Your task to perform on an android device: Open the calendar and show me this week's events Image 0: 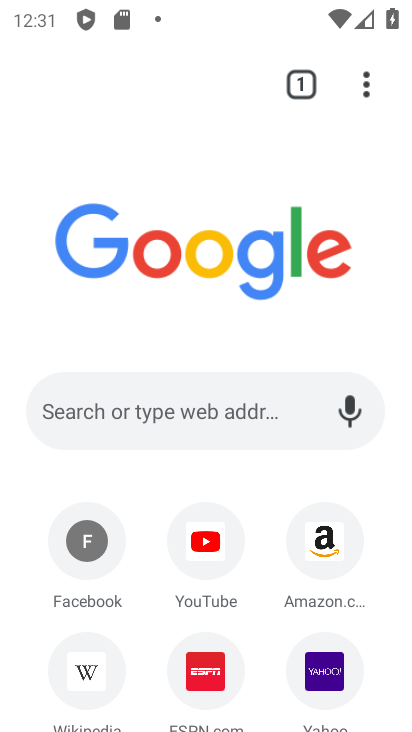
Step 0: press home button
Your task to perform on an android device: Open the calendar and show me this week's events Image 1: 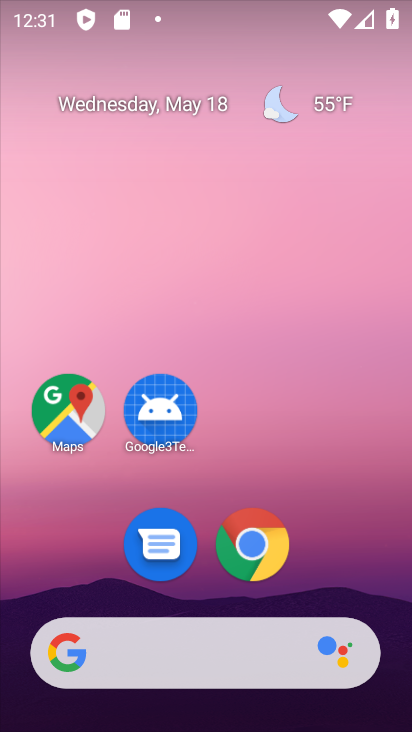
Step 1: drag from (209, 579) to (247, 50)
Your task to perform on an android device: Open the calendar and show me this week's events Image 2: 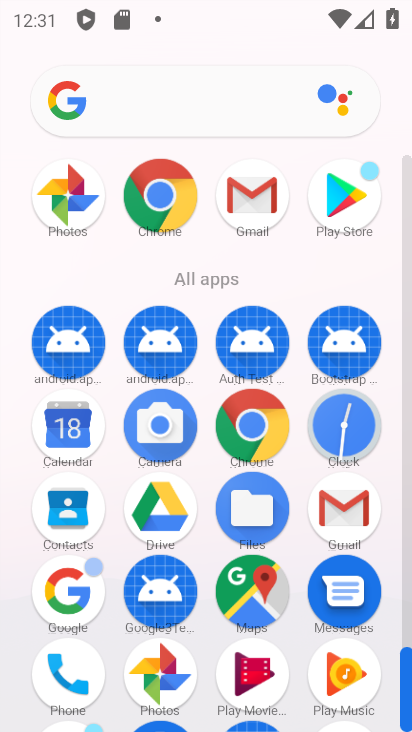
Step 2: click (78, 430)
Your task to perform on an android device: Open the calendar and show me this week's events Image 3: 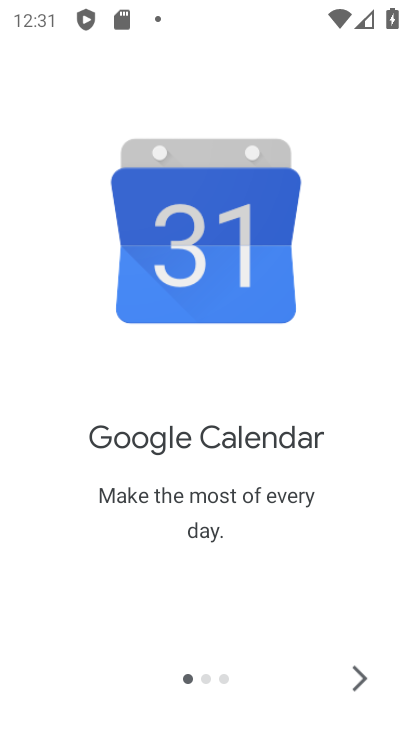
Step 3: click (359, 671)
Your task to perform on an android device: Open the calendar and show me this week's events Image 4: 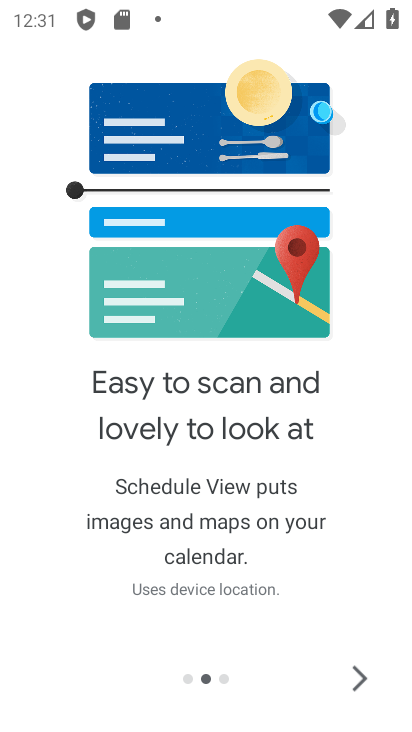
Step 4: click (357, 674)
Your task to perform on an android device: Open the calendar and show me this week's events Image 5: 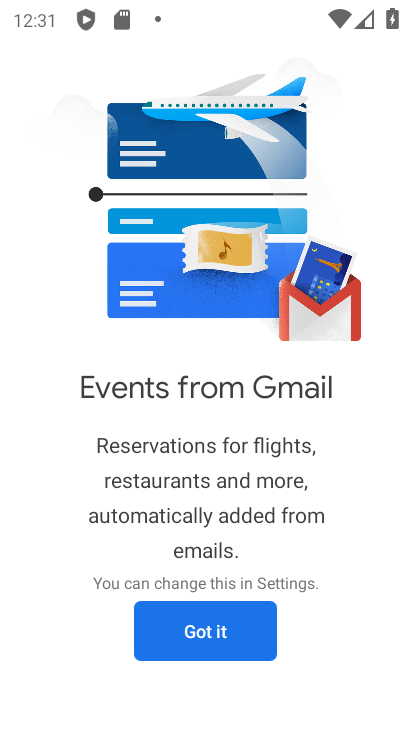
Step 5: click (221, 633)
Your task to perform on an android device: Open the calendar and show me this week's events Image 6: 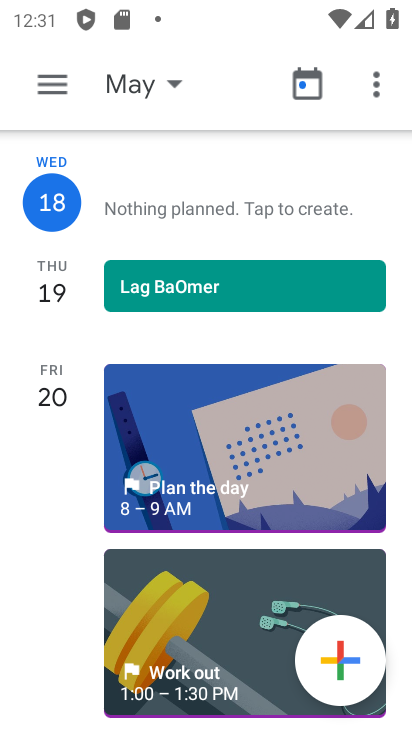
Step 6: click (60, 91)
Your task to perform on an android device: Open the calendar and show me this week's events Image 7: 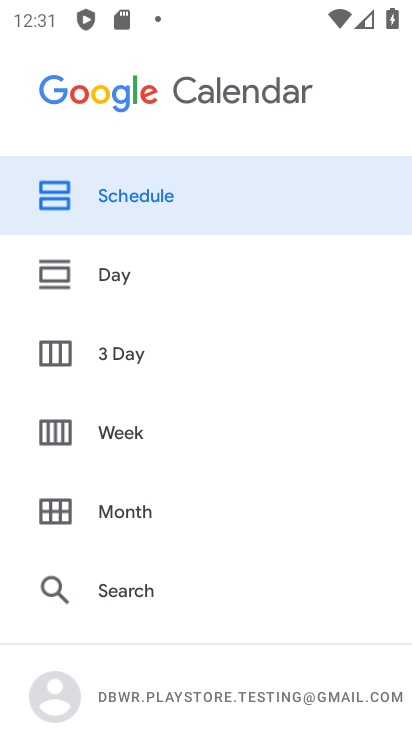
Step 7: drag from (131, 592) to (235, 135)
Your task to perform on an android device: Open the calendar and show me this week's events Image 8: 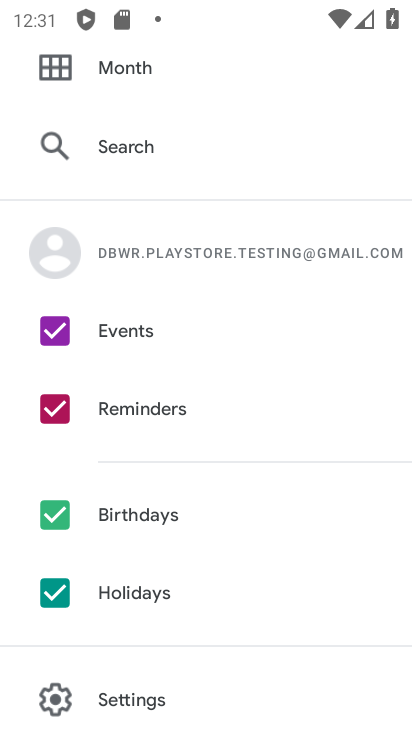
Step 8: click (101, 412)
Your task to perform on an android device: Open the calendar and show me this week's events Image 9: 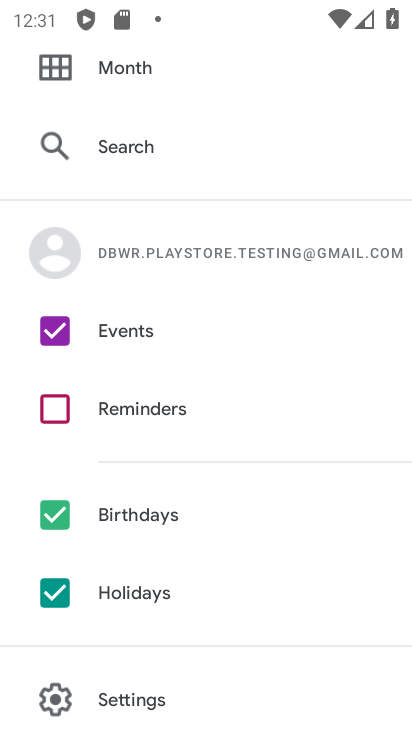
Step 9: click (70, 516)
Your task to perform on an android device: Open the calendar and show me this week's events Image 10: 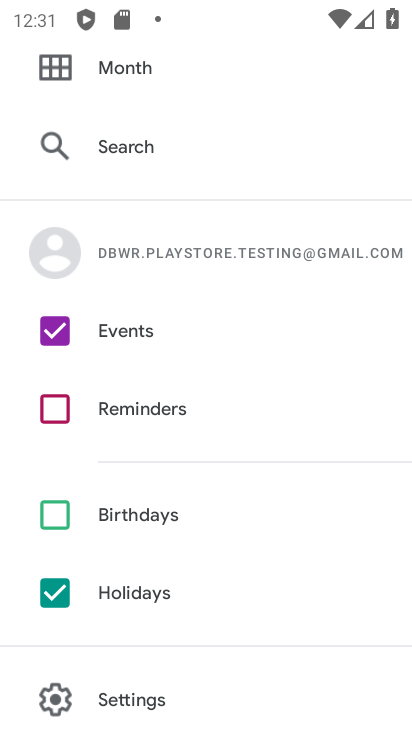
Step 10: click (57, 596)
Your task to perform on an android device: Open the calendar and show me this week's events Image 11: 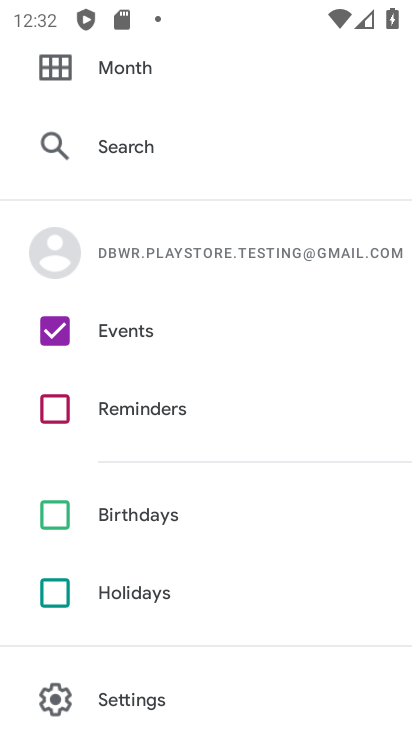
Step 11: drag from (230, 290) to (209, 638)
Your task to perform on an android device: Open the calendar and show me this week's events Image 12: 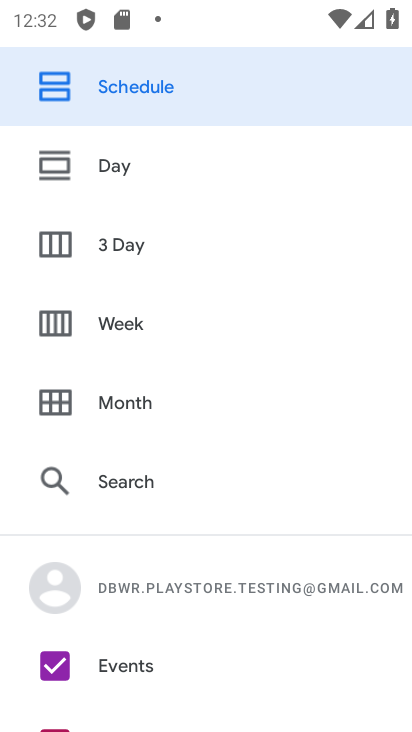
Step 12: click (130, 332)
Your task to perform on an android device: Open the calendar and show me this week's events Image 13: 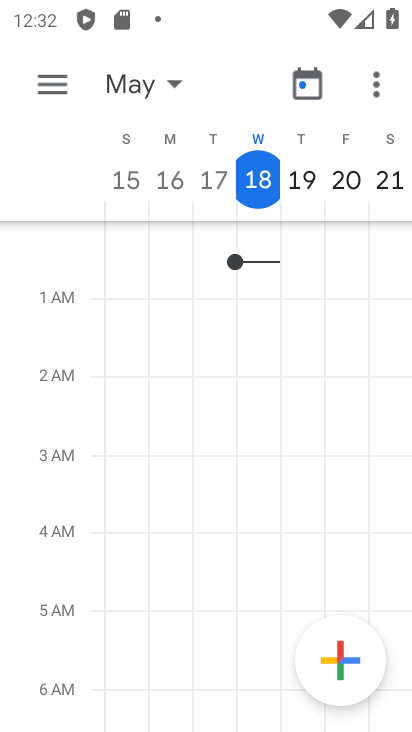
Step 13: task complete